Your task to perform on an android device: Go to display settings Image 0: 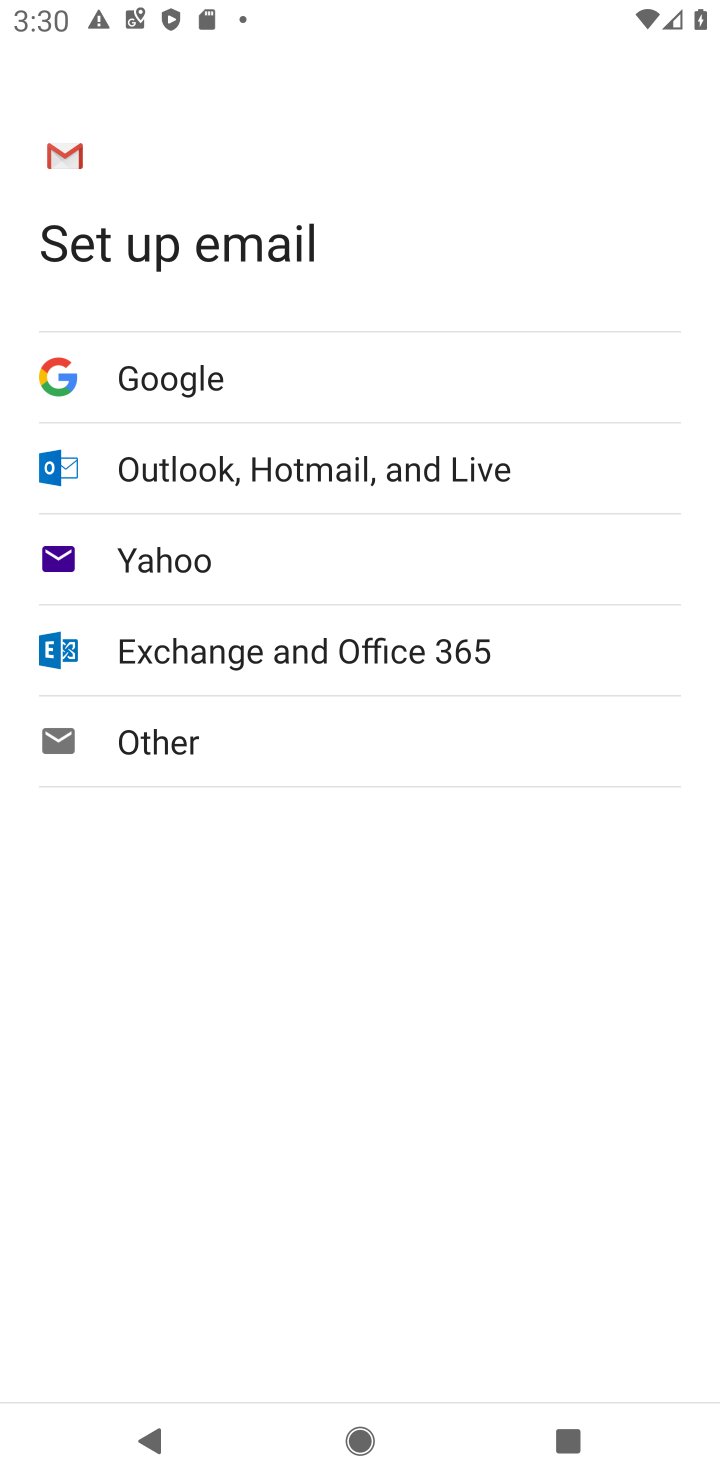
Step 0: press home button
Your task to perform on an android device: Go to display settings Image 1: 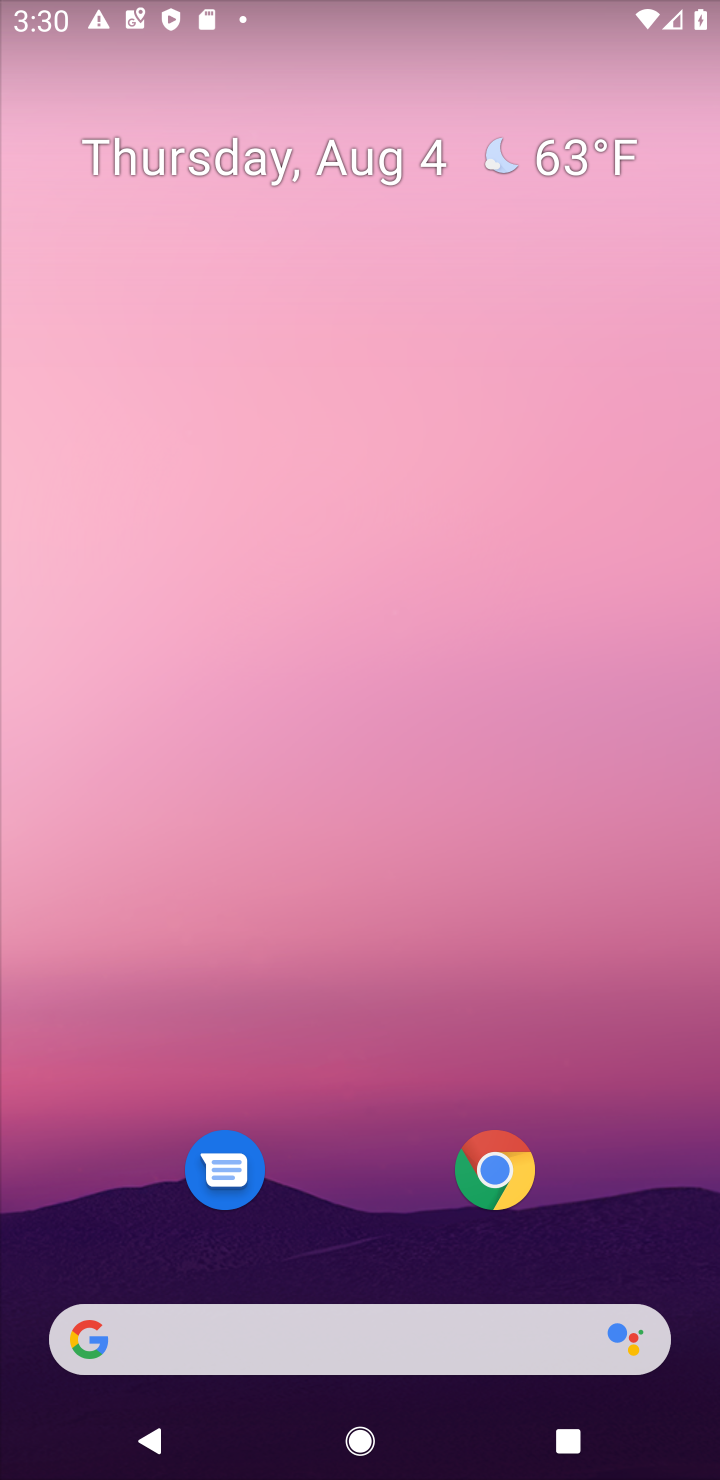
Step 1: drag from (642, 1239) to (583, 258)
Your task to perform on an android device: Go to display settings Image 2: 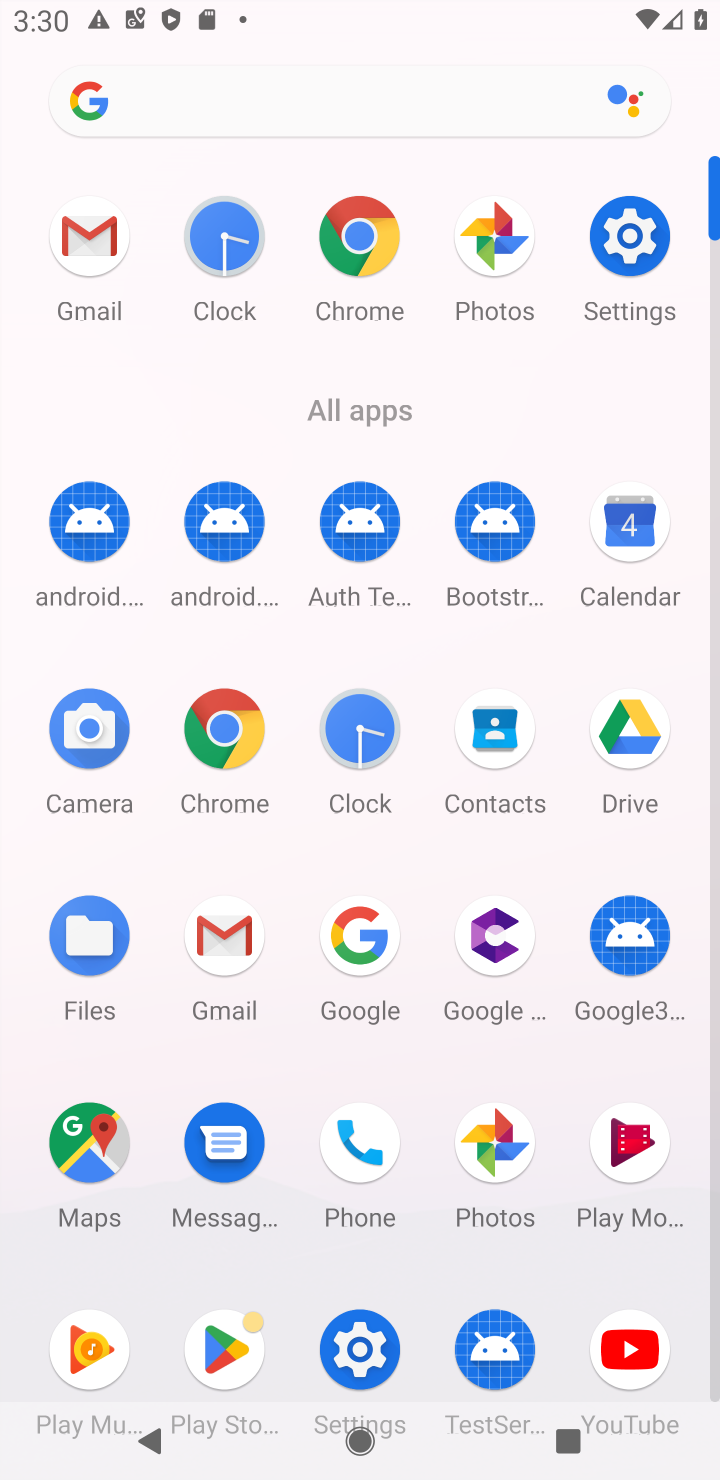
Step 2: click (359, 1347)
Your task to perform on an android device: Go to display settings Image 3: 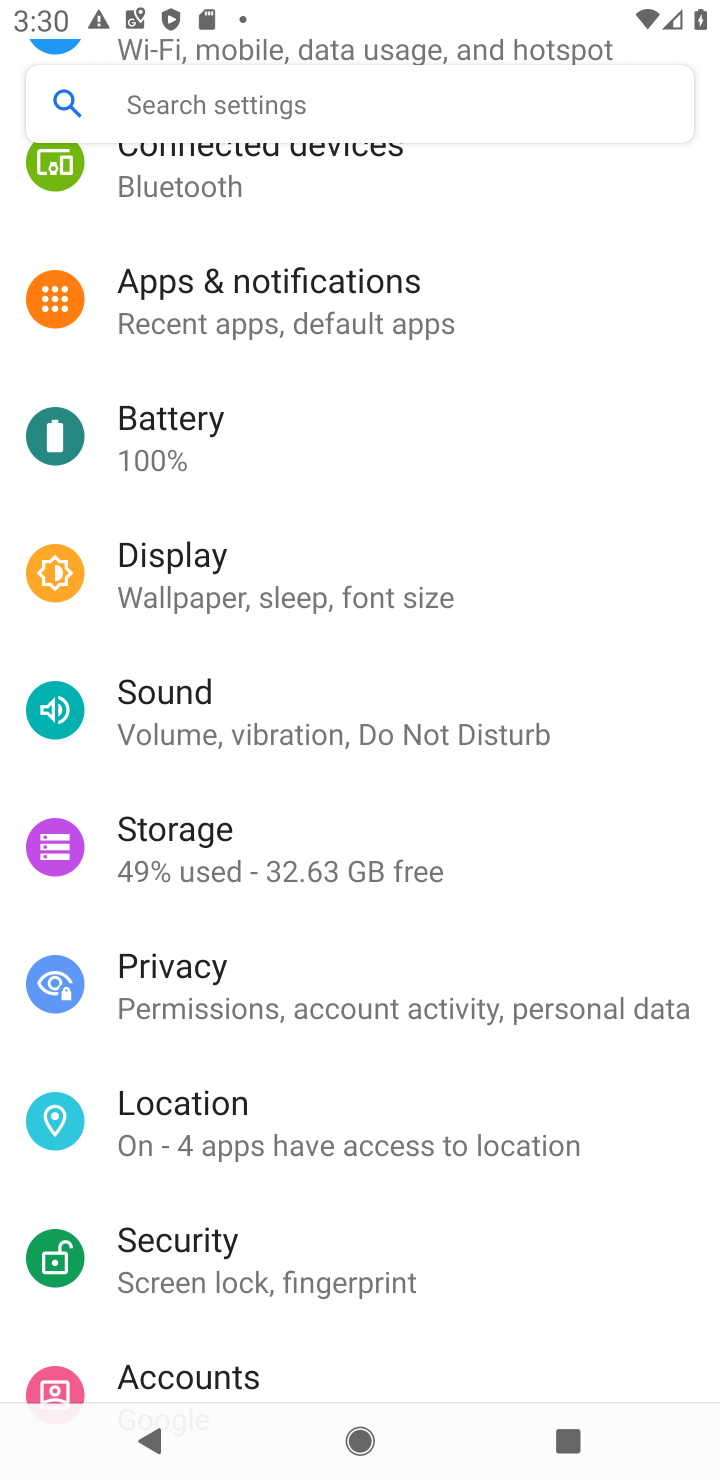
Step 3: click (159, 575)
Your task to perform on an android device: Go to display settings Image 4: 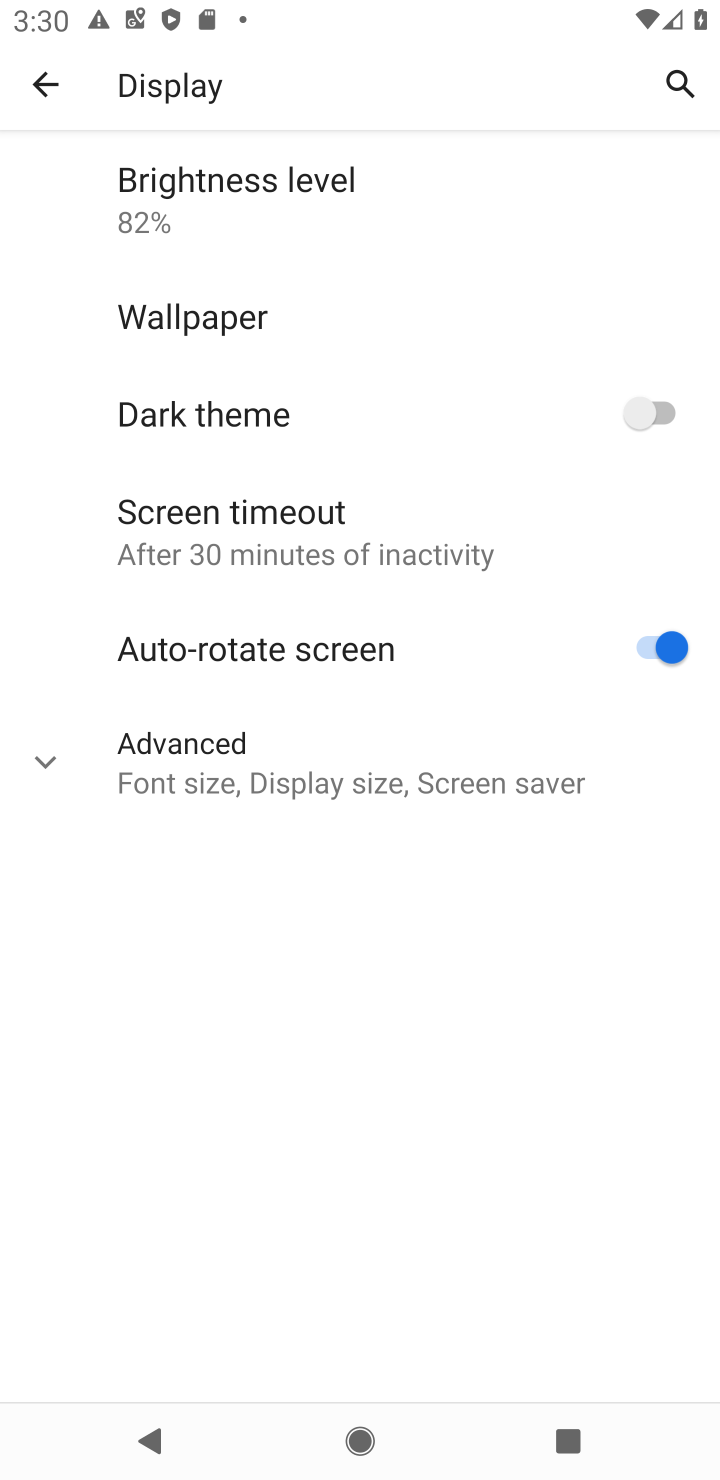
Step 4: click (47, 742)
Your task to perform on an android device: Go to display settings Image 5: 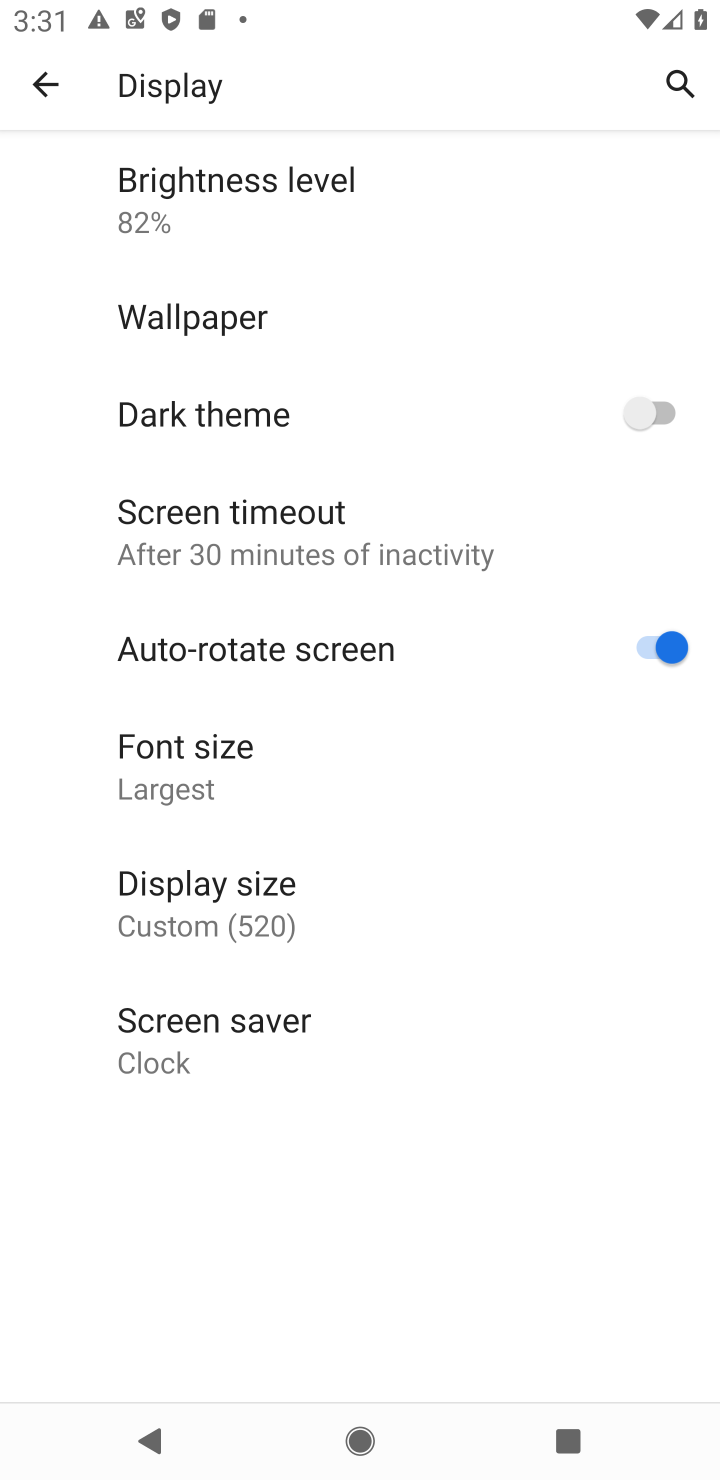
Step 5: task complete